Your task to perform on an android device: check google app version Image 0: 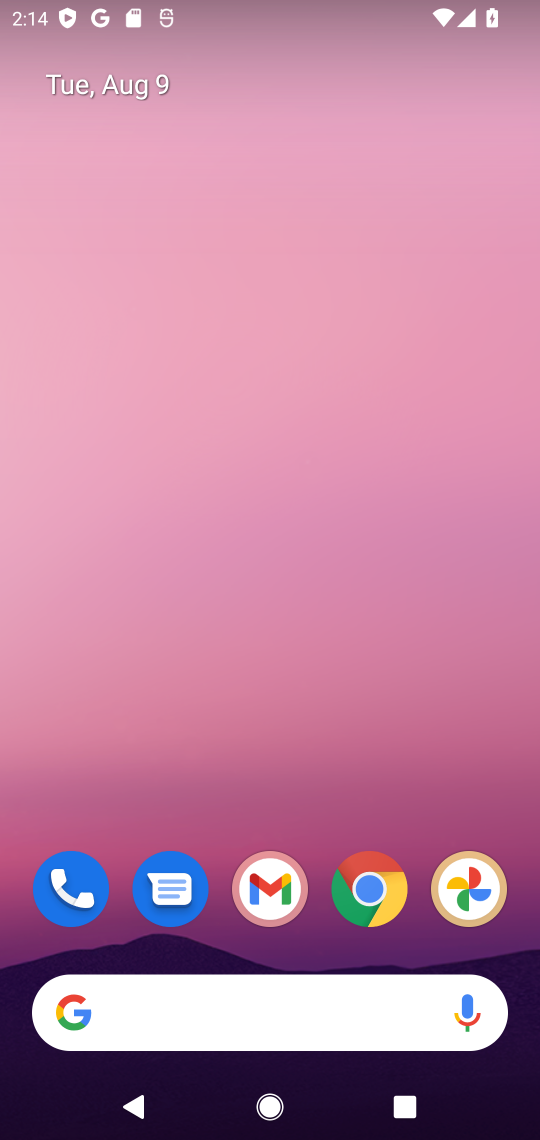
Step 0: click (224, 1011)
Your task to perform on an android device: check google app version Image 1: 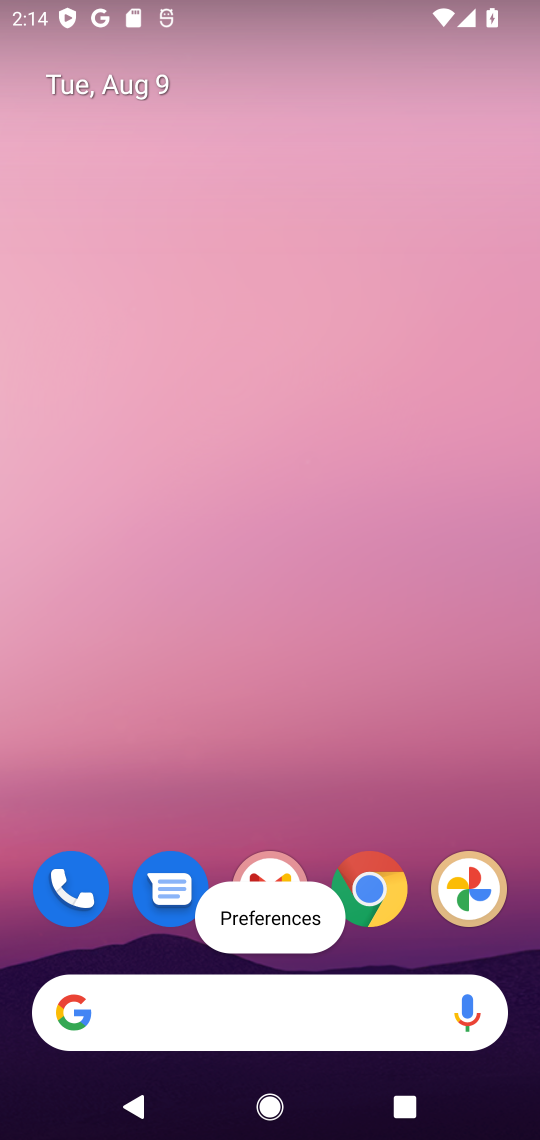
Step 1: click (224, 1009)
Your task to perform on an android device: check google app version Image 2: 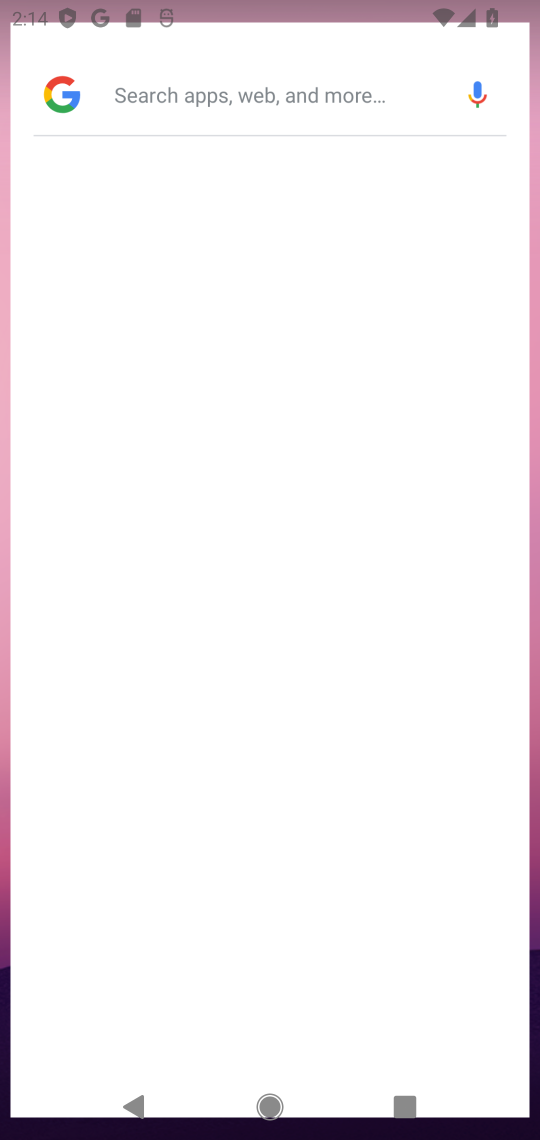
Step 2: click (73, 1009)
Your task to perform on an android device: check google app version Image 3: 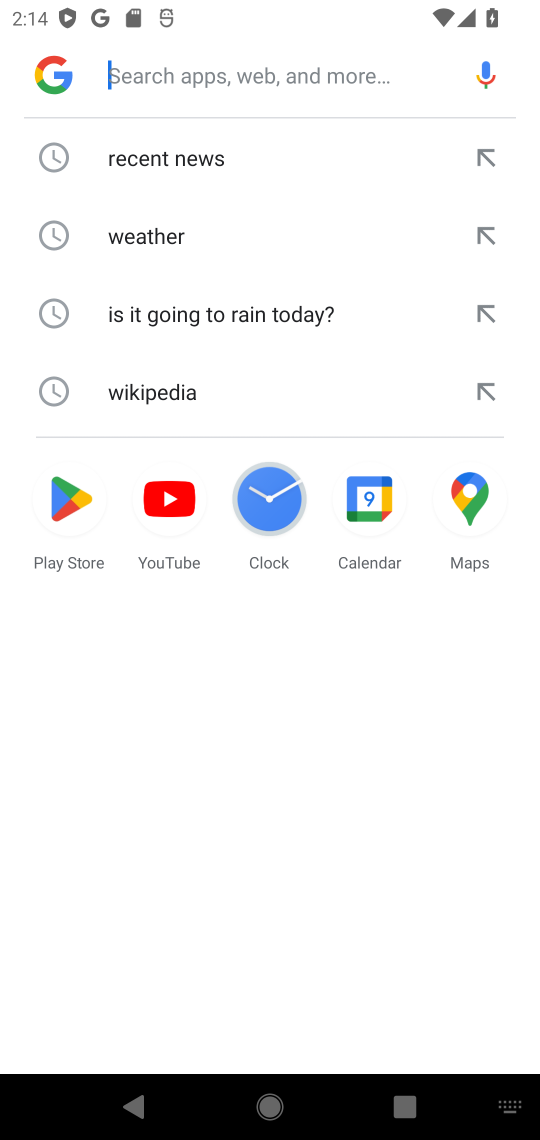
Step 3: click (67, 70)
Your task to perform on an android device: check google app version Image 4: 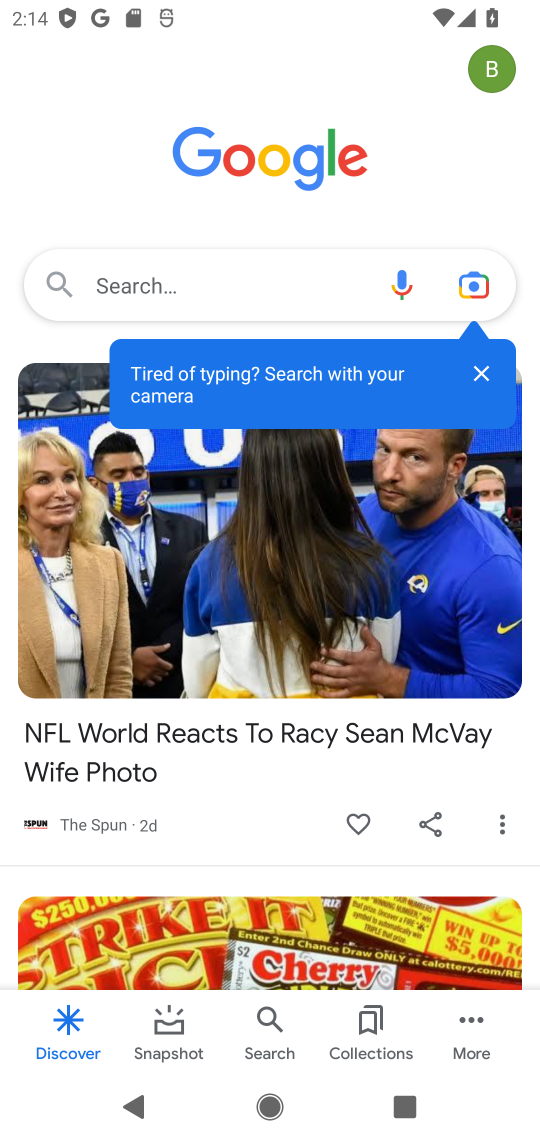
Step 4: click (468, 1017)
Your task to perform on an android device: check google app version Image 5: 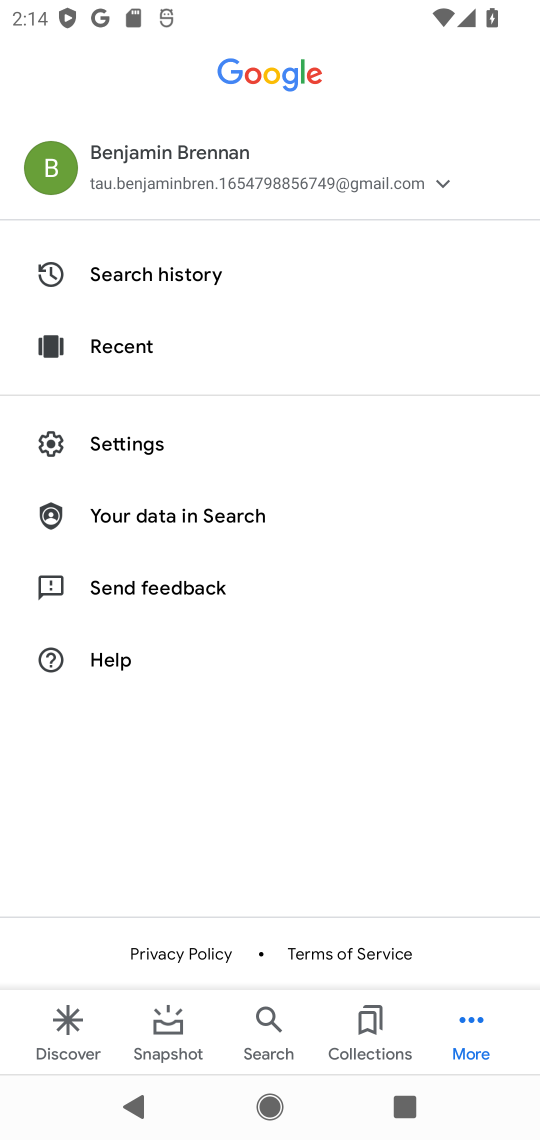
Step 5: click (149, 440)
Your task to perform on an android device: check google app version Image 6: 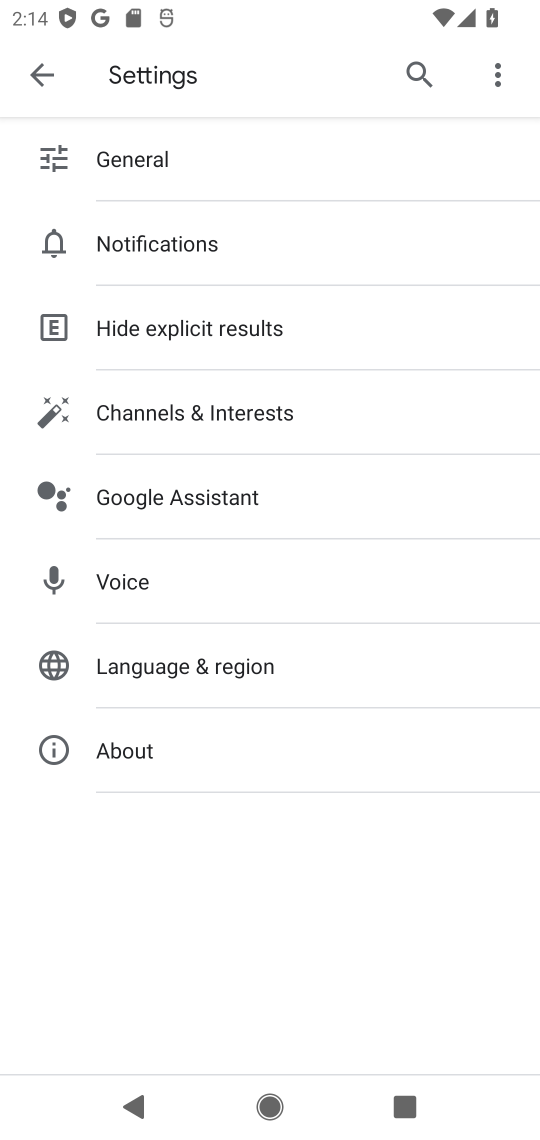
Step 6: click (145, 744)
Your task to perform on an android device: check google app version Image 7: 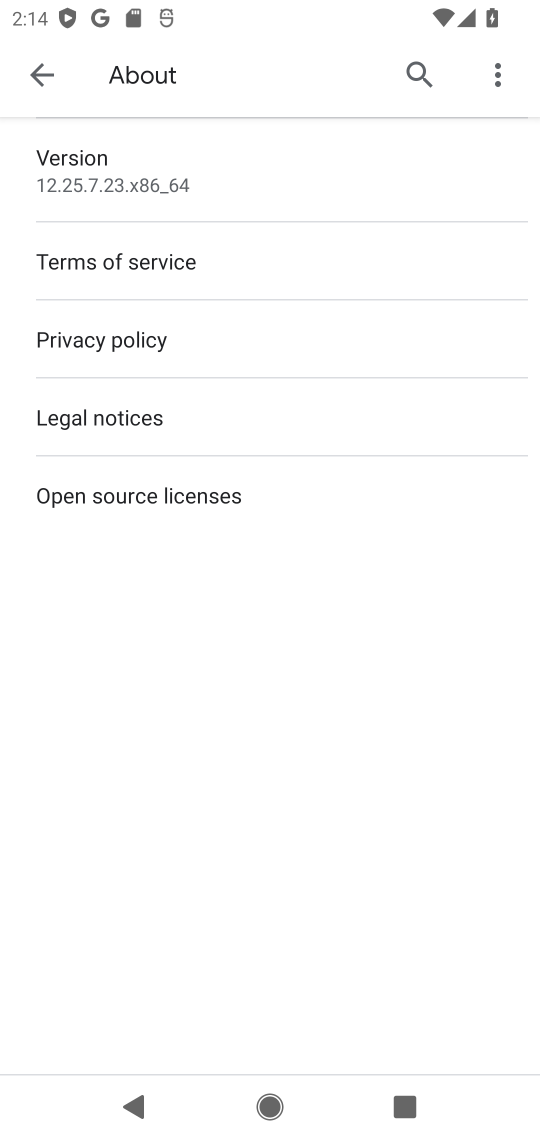
Step 7: task complete